Your task to perform on an android device: change the clock style Image 0: 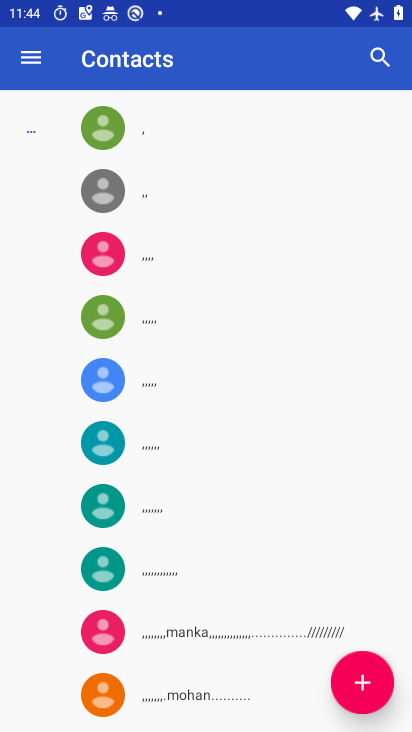
Step 0: press home button
Your task to perform on an android device: change the clock style Image 1: 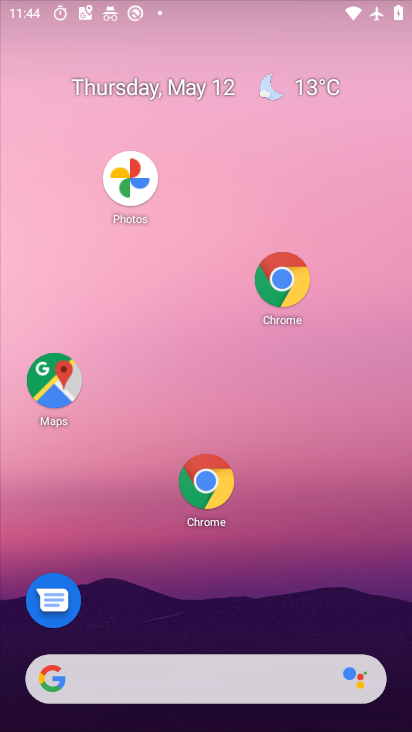
Step 1: drag from (270, 566) to (194, 2)
Your task to perform on an android device: change the clock style Image 2: 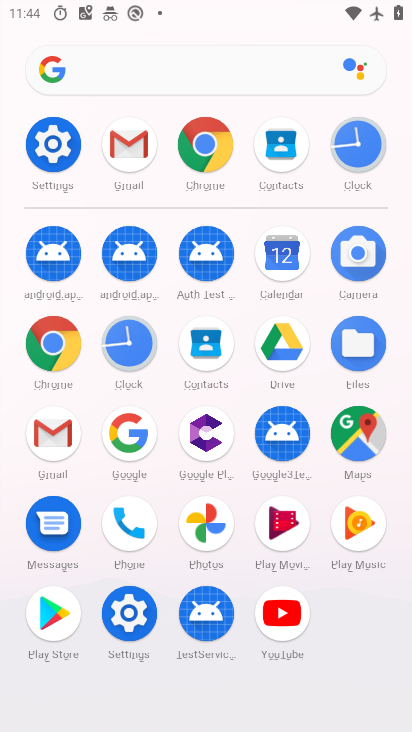
Step 2: click (128, 341)
Your task to perform on an android device: change the clock style Image 3: 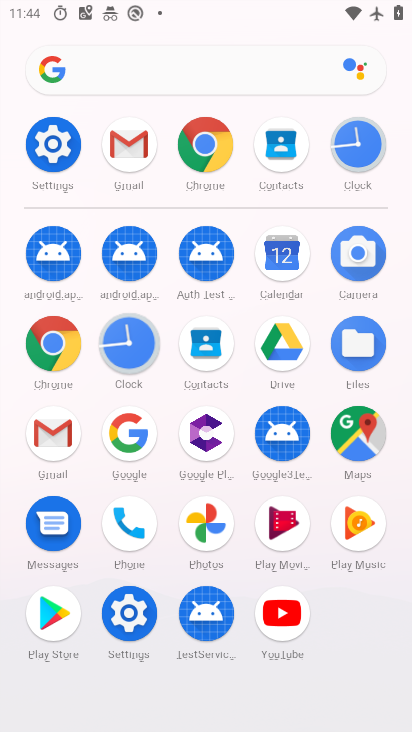
Step 3: click (127, 340)
Your task to perform on an android device: change the clock style Image 4: 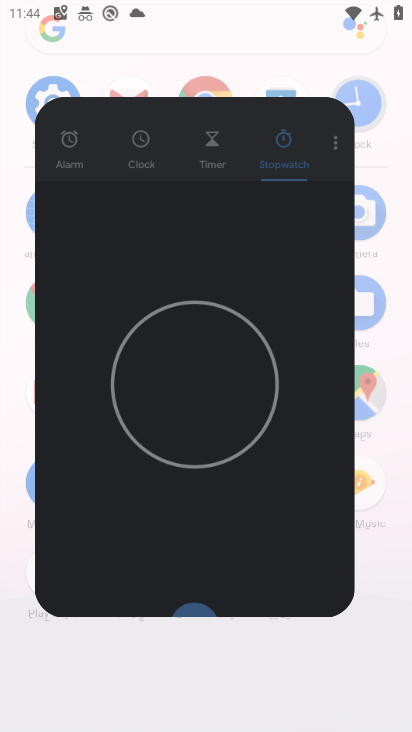
Step 4: click (127, 340)
Your task to perform on an android device: change the clock style Image 5: 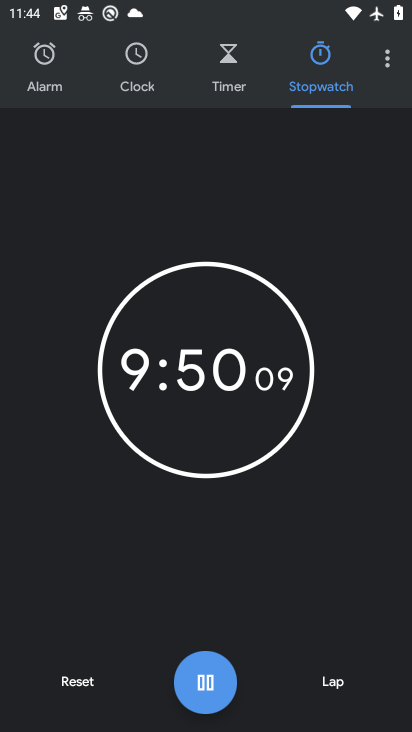
Step 5: click (127, 340)
Your task to perform on an android device: change the clock style Image 6: 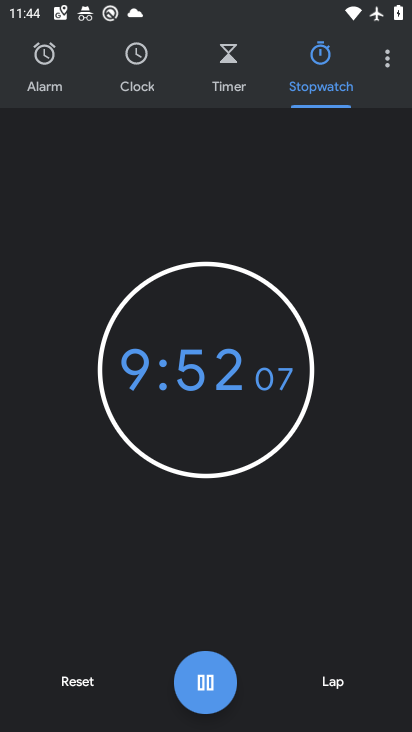
Step 6: click (201, 678)
Your task to perform on an android device: change the clock style Image 7: 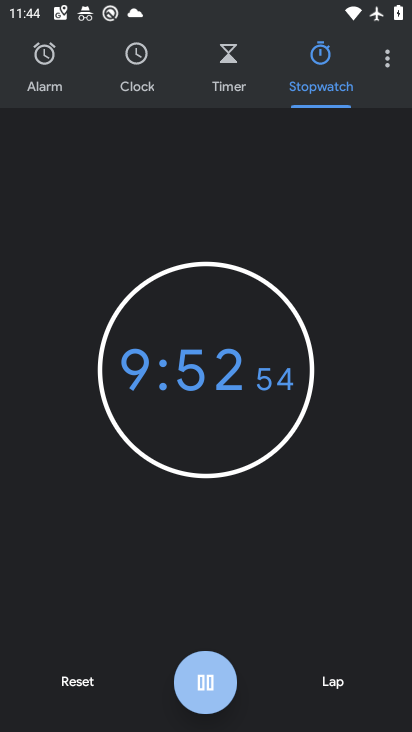
Step 7: click (201, 678)
Your task to perform on an android device: change the clock style Image 8: 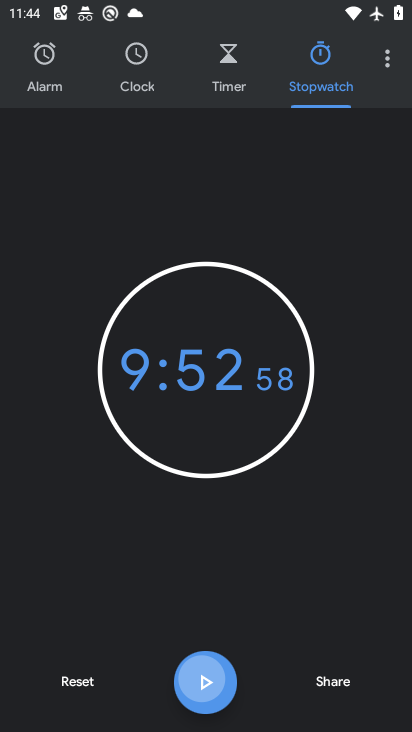
Step 8: click (202, 677)
Your task to perform on an android device: change the clock style Image 9: 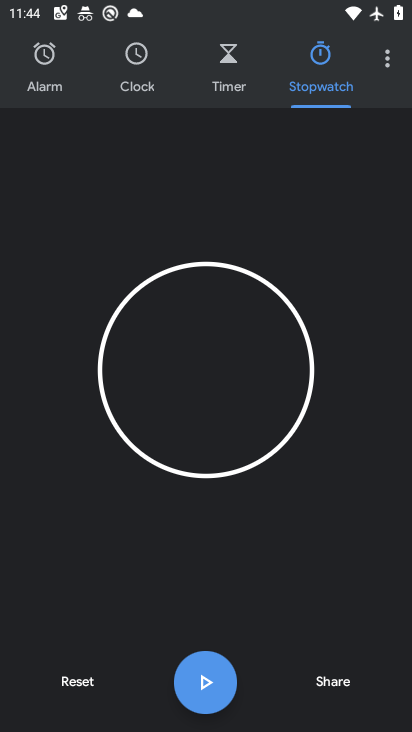
Step 9: click (385, 64)
Your task to perform on an android device: change the clock style Image 10: 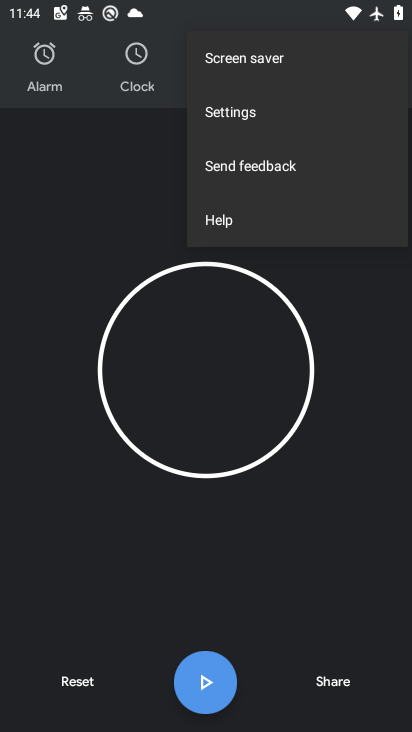
Step 10: click (235, 116)
Your task to perform on an android device: change the clock style Image 11: 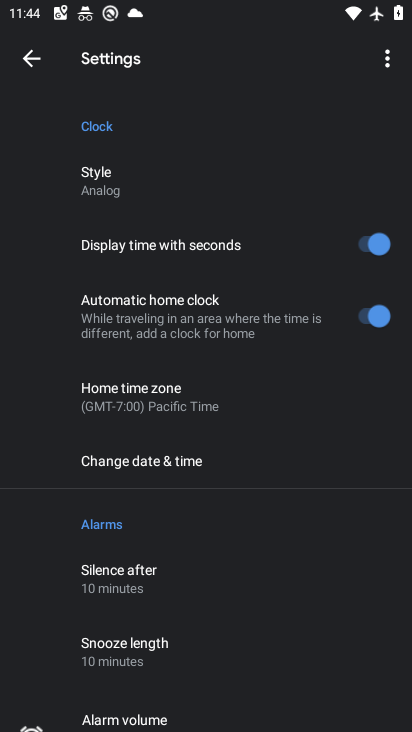
Step 11: drag from (215, 511) to (243, 157)
Your task to perform on an android device: change the clock style Image 12: 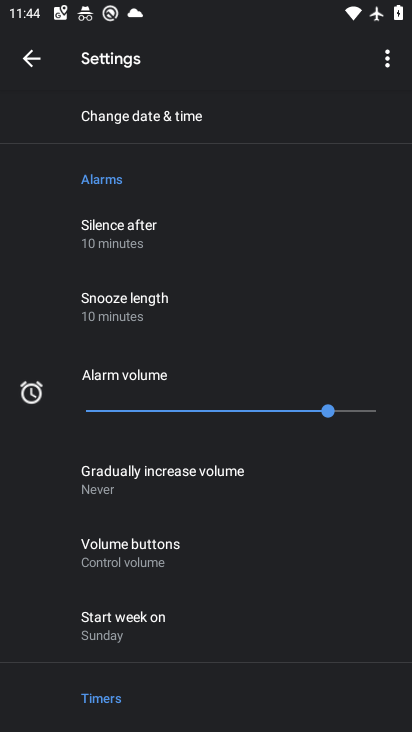
Step 12: drag from (140, 201) to (155, 648)
Your task to perform on an android device: change the clock style Image 13: 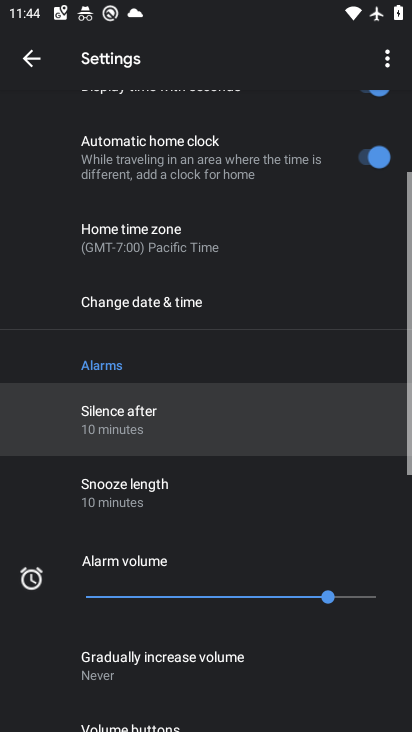
Step 13: drag from (233, 255) to (271, 512)
Your task to perform on an android device: change the clock style Image 14: 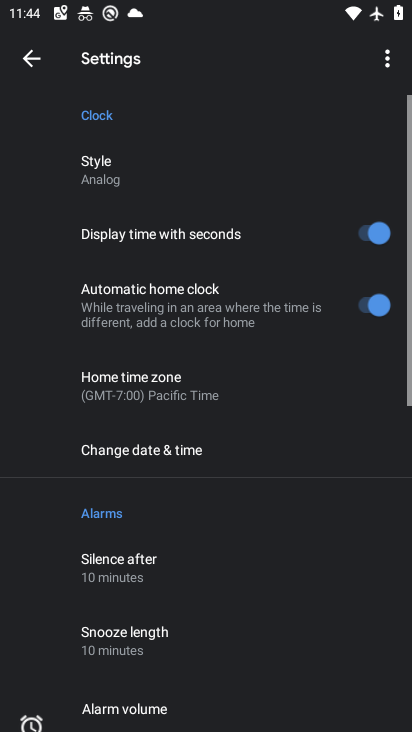
Step 14: drag from (210, 195) to (276, 706)
Your task to perform on an android device: change the clock style Image 15: 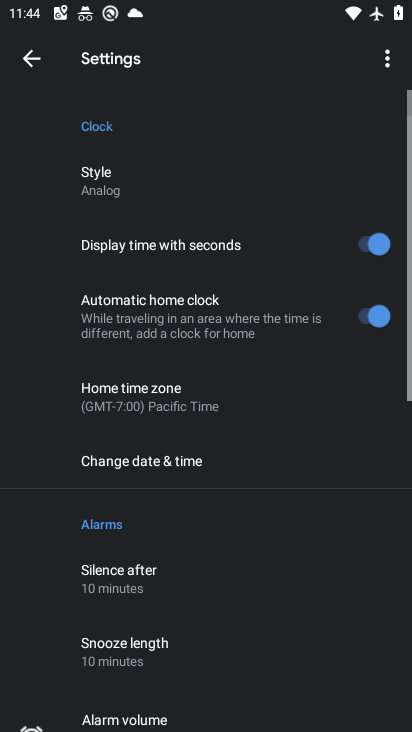
Step 15: drag from (199, 272) to (206, 667)
Your task to perform on an android device: change the clock style Image 16: 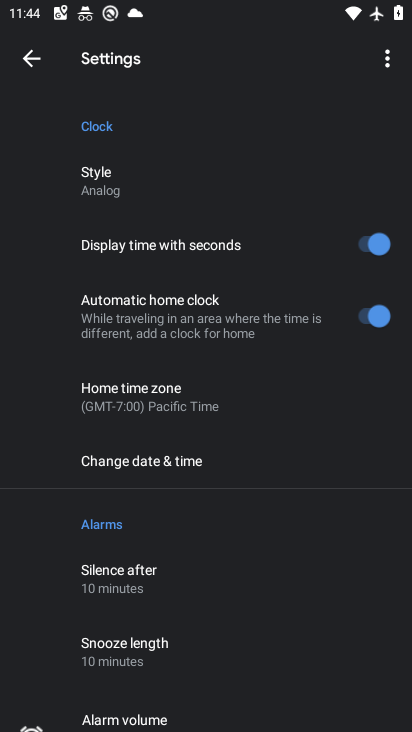
Step 16: click (121, 190)
Your task to perform on an android device: change the clock style Image 17: 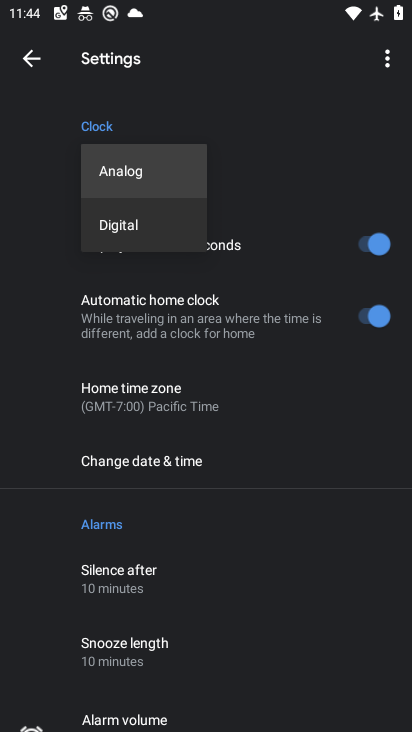
Step 17: click (132, 225)
Your task to perform on an android device: change the clock style Image 18: 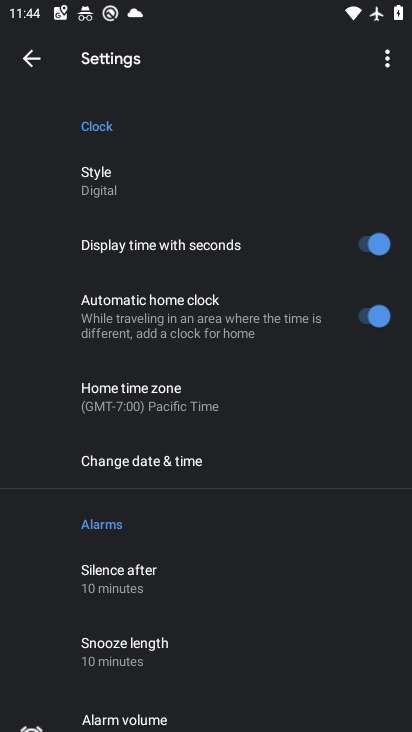
Step 18: task complete